Your task to perform on an android device: open chrome privacy settings Image 0: 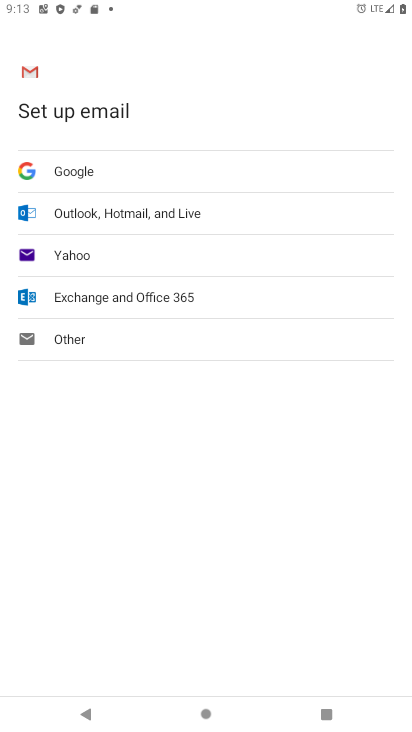
Step 0: press home button
Your task to perform on an android device: open chrome privacy settings Image 1: 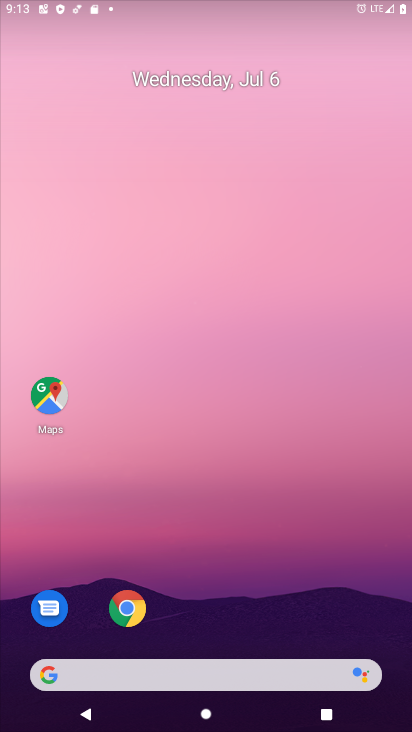
Step 1: drag from (370, 569) to (289, 4)
Your task to perform on an android device: open chrome privacy settings Image 2: 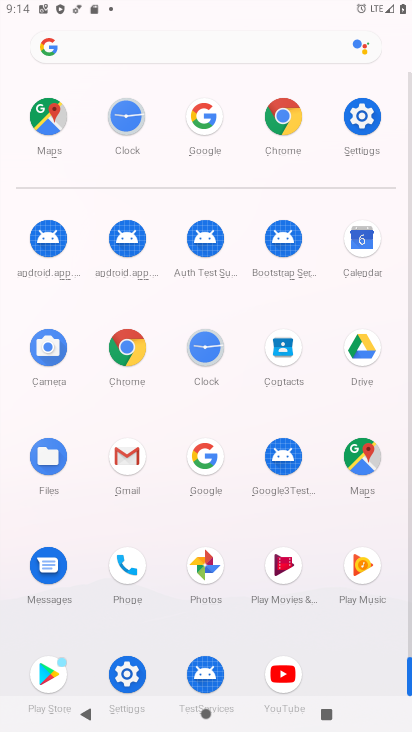
Step 2: click (287, 132)
Your task to perform on an android device: open chrome privacy settings Image 3: 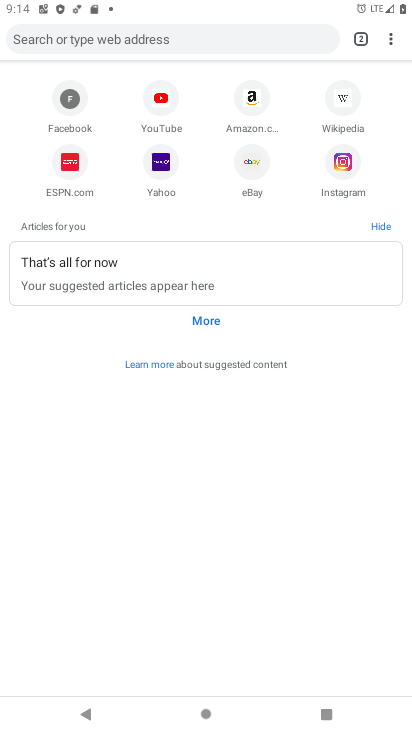
Step 3: click (389, 32)
Your task to perform on an android device: open chrome privacy settings Image 4: 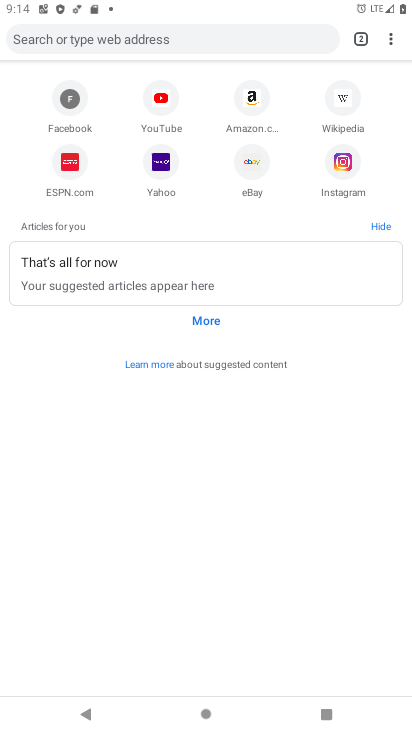
Step 4: click (391, 37)
Your task to perform on an android device: open chrome privacy settings Image 5: 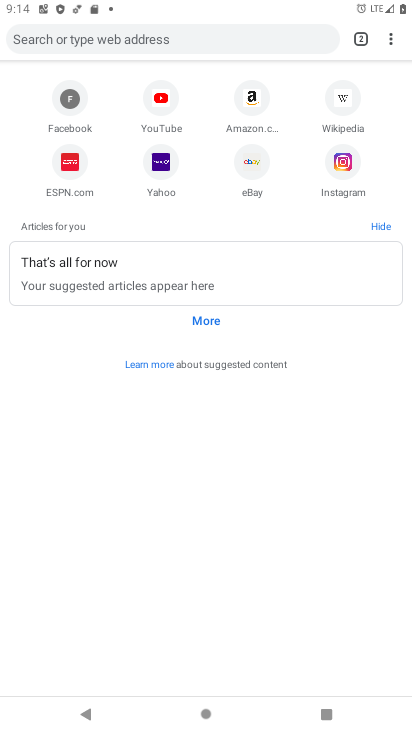
Step 5: click (387, 34)
Your task to perform on an android device: open chrome privacy settings Image 6: 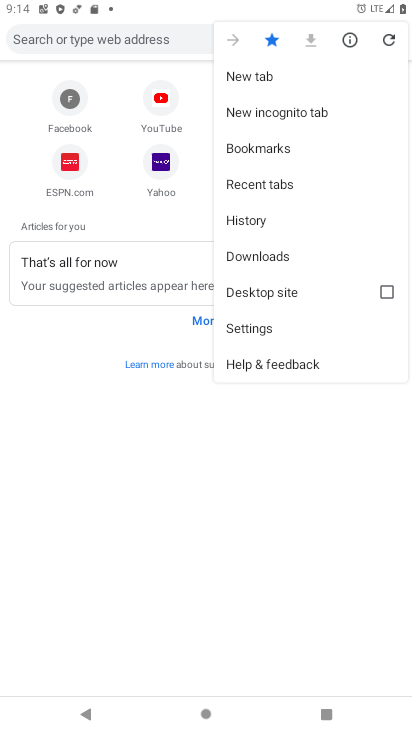
Step 6: click (289, 330)
Your task to perform on an android device: open chrome privacy settings Image 7: 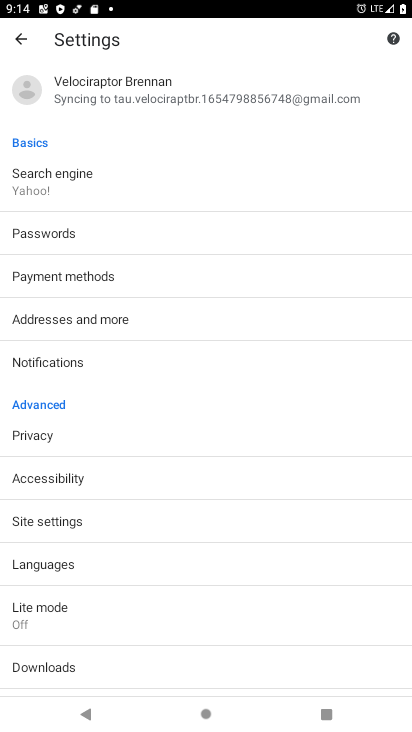
Step 7: drag from (137, 674) to (240, 267)
Your task to perform on an android device: open chrome privacy settings Image 8: 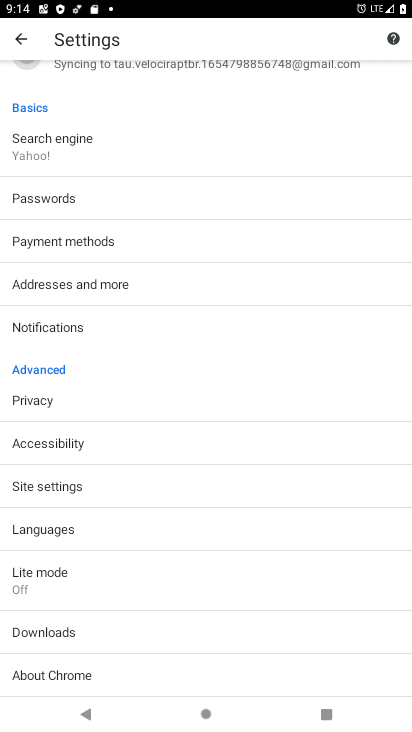
Step 8: press back button
Your task to perform on an android device: open chrome privacy settings Image 9: 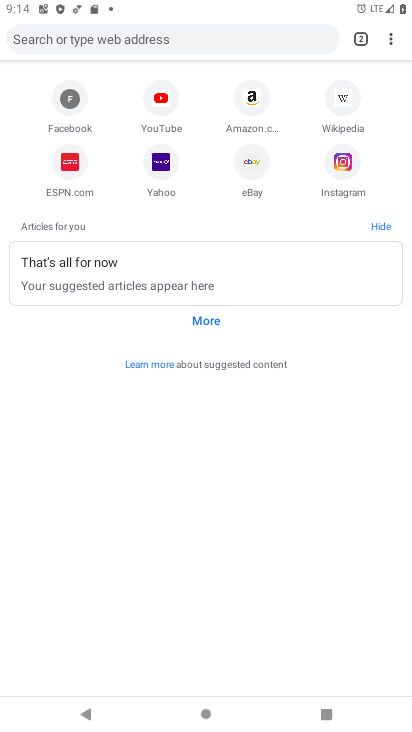
Step 9: click (393, 40)
Your task to perform on an android device: open chrome privacy settings Image 10: 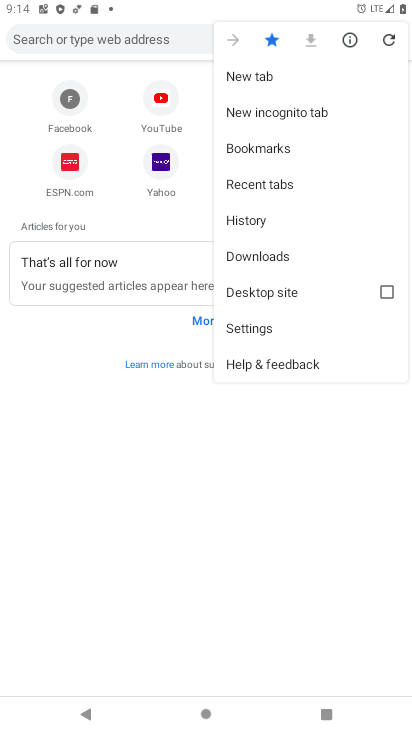
Step 10: click (287, 327)
Your task to perform on an android device: open chrome privacy settings Image 11: 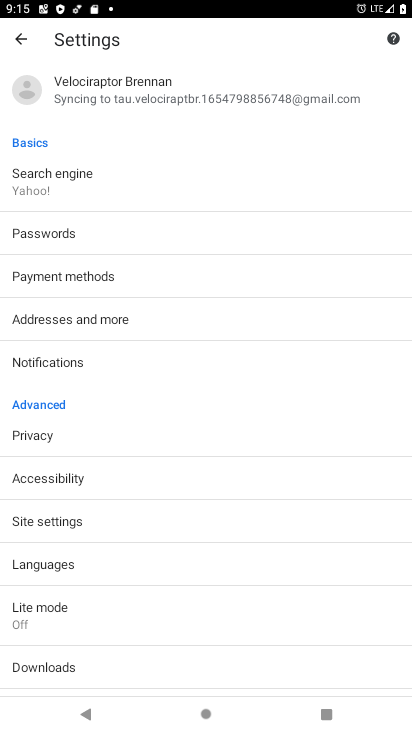
Step 11: task complete